Your task to perform on an android device: Is it going to rain this weekend? Image 0: 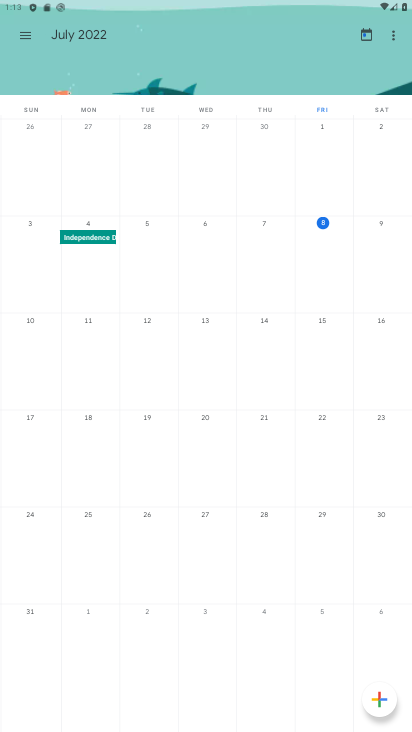
Step 0: press home button
Your task to perform on an android device: Is it going to rain this weekend? Image 1: 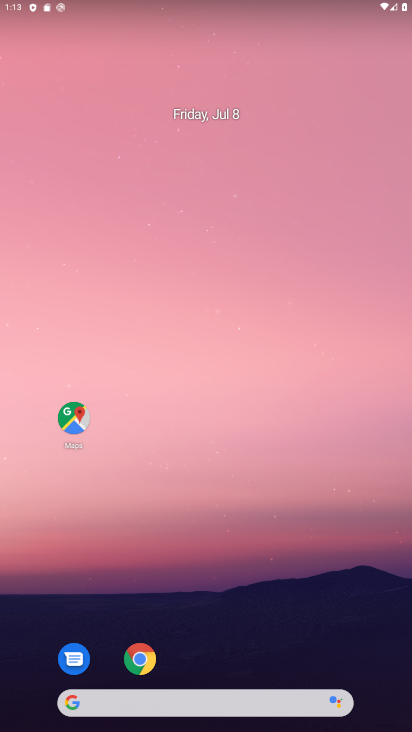
Step 1: drag from (256, 656) to (260, 174)
Your task to perform on an android device: Is it going to rain this weekend? Image 2: 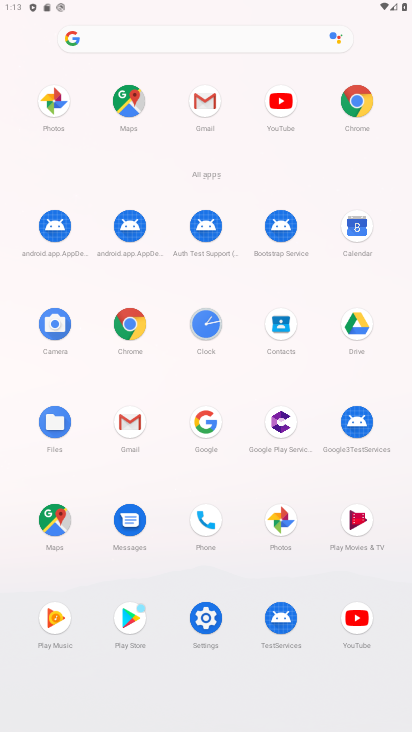
Step 2: click (204, 420)
Your task to perform on an android device: Is it going to rain this weekend? Image 3: 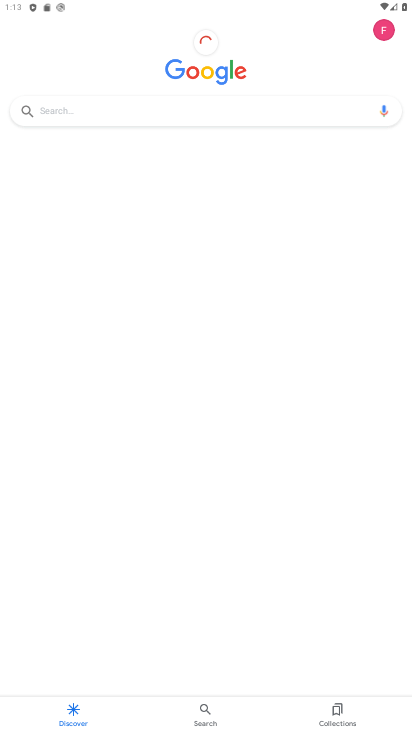
Step 3: click (203, 105)
Your task to perform on an android device: Is it going to rain this weekend? Image 4: 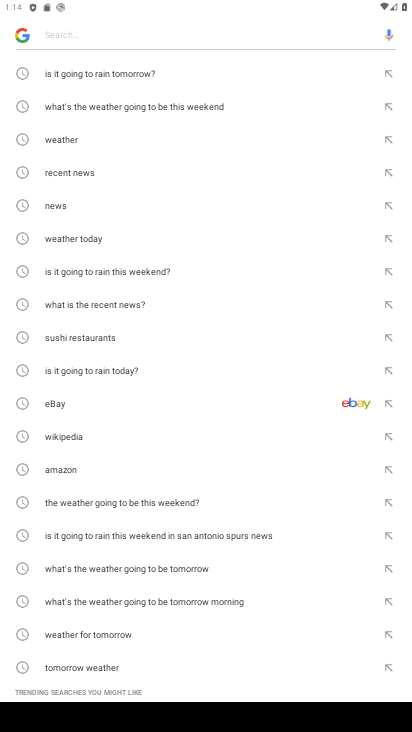
Step 4: type "Is it going to rain this weekend?"
Your task to perform on an android device: Is it going to rain this weekend? Image 5: 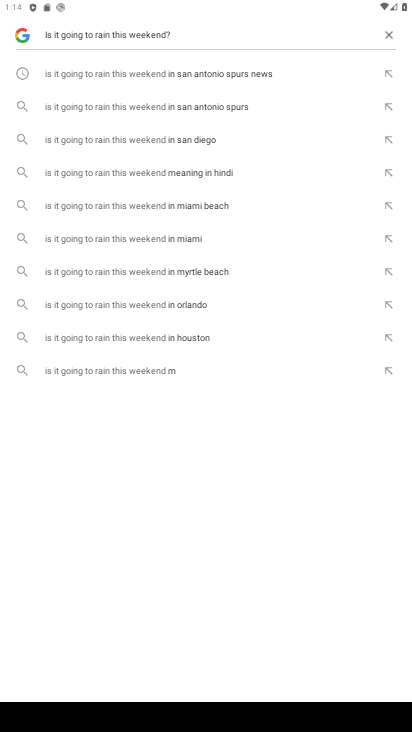
Step 5: click (143, 110)
Your task to perform on an android device: Is it going to rain this weekend? Image 6: 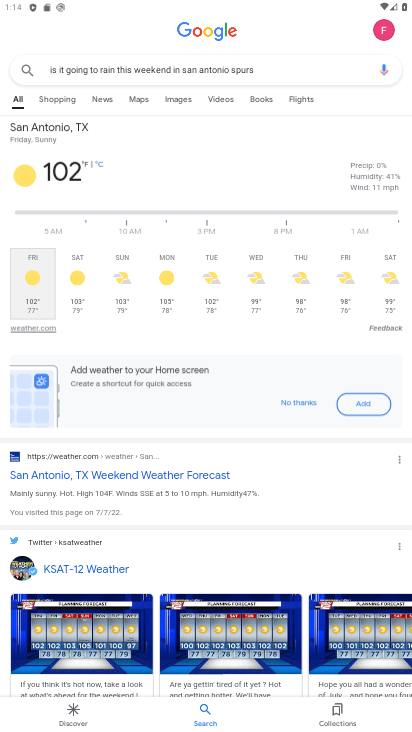
Step 6: task complete